Your task to perform on an android device: Show me popular videos on Youtube Image 0: 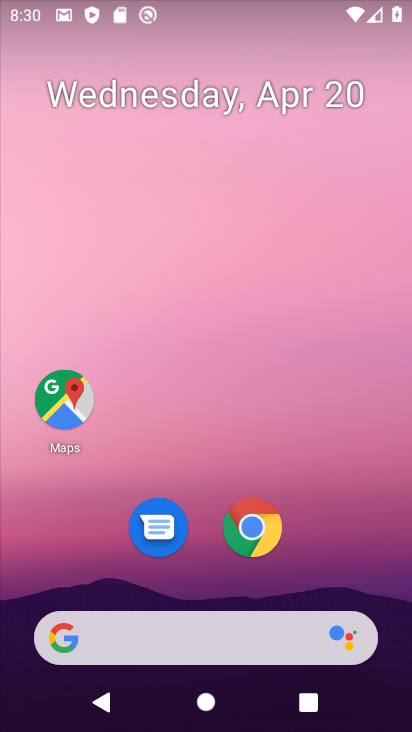
Step 0: drag from (315, 569) to (385, 62)
Your task to perform on an android device: Show me popular videos on Youtube Image 1: 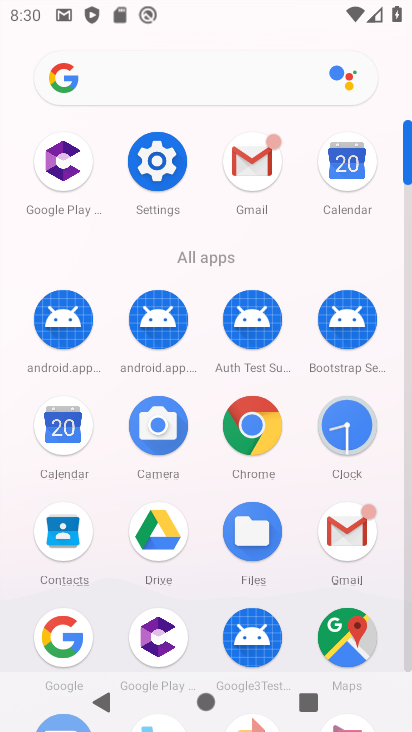
Step 1: click (401, 665)
Your task to perform on an android device: Show me popular videos on Youtube Image 2: 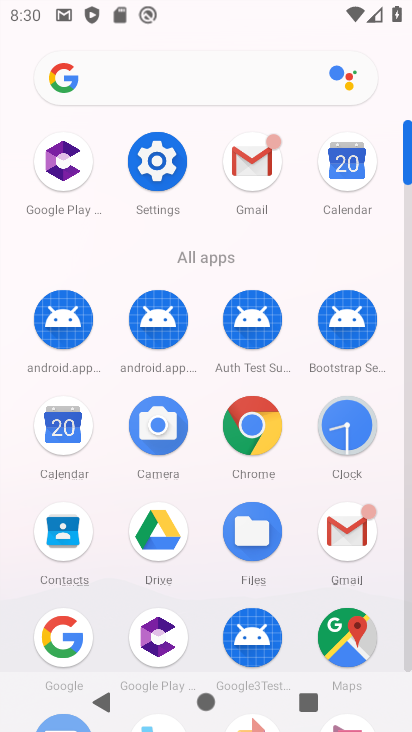
Step 2: click (409, 659)
Your task to perform on an android device: Show me popular videos on Youtube Image 3: 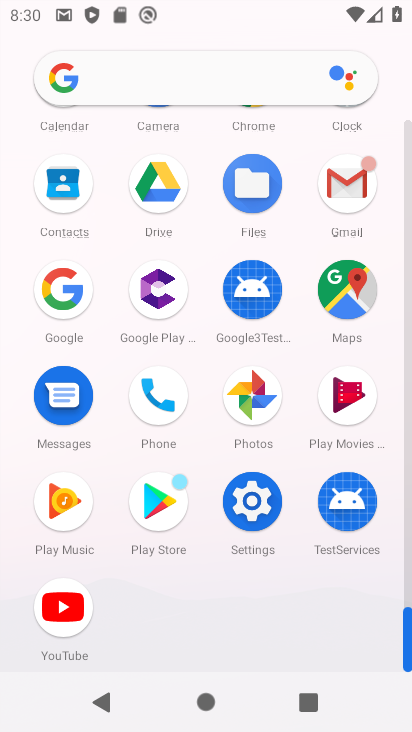
Step 3: click (54, 608)
Your task to perform on an android device: Show me popular videos on Youtube Image 4: 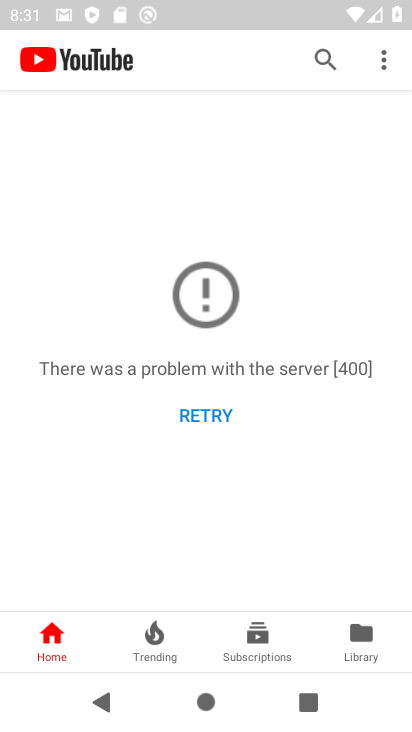
Step 4: task complete